Your task to perform on an android device: stop showing notifications on the lock screen Image 0: 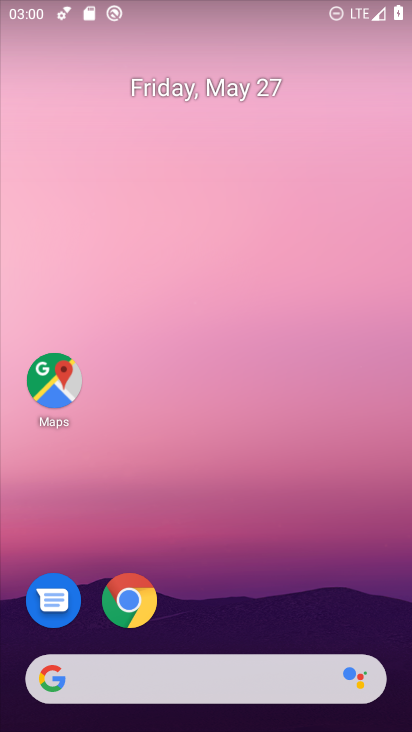
Step 0: drag from (198, 721) to (188, 104)
Your task to perform on an android device: stop showing notifications on the lock screen Image 1: 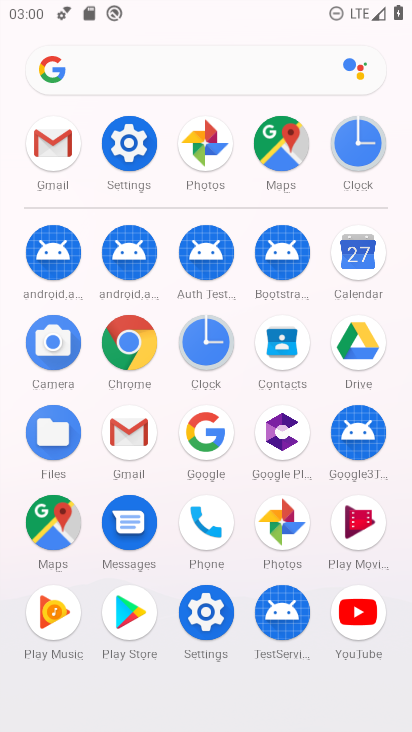
Step 1: click (120, 145)
Your task to perform on an android device: stop showing notifications on the lock screen Image 2: 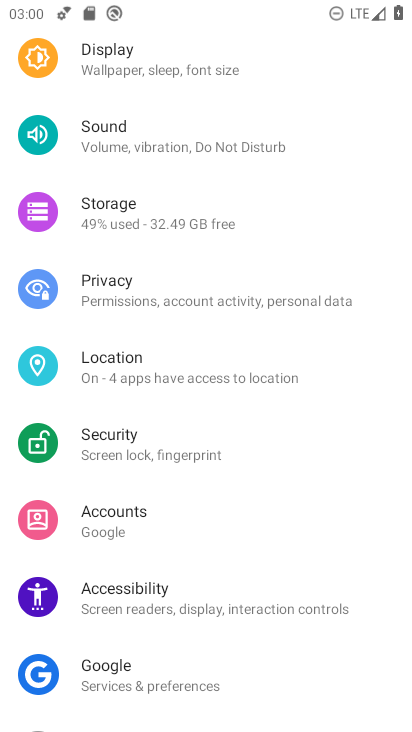
Step 2: drag from (245, 131) to (239, 542)
Your task to perform on an android device: stop showing notifications on the lock screen Image 3: 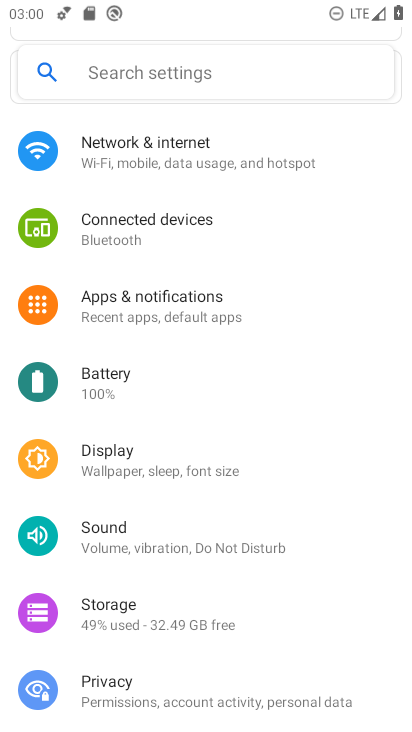
Step 3: click (164, 301)
Your task to perform on an android device: stop showing notifications on the lock screen Image 4: 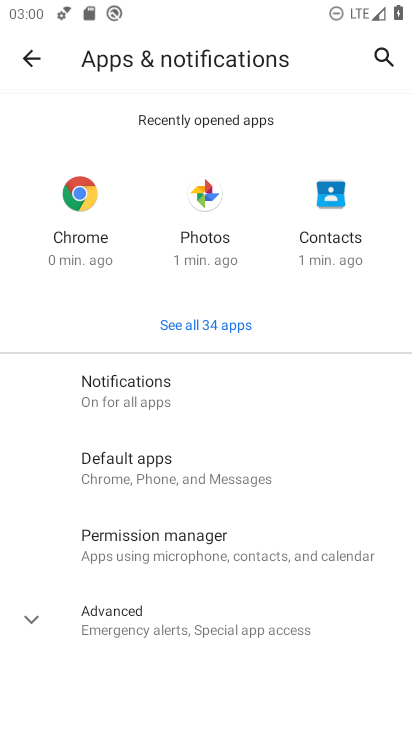
Step 4: click (122, 391)
Your task to perform on an android device: stop showing notifications on the lock screen Image 5: 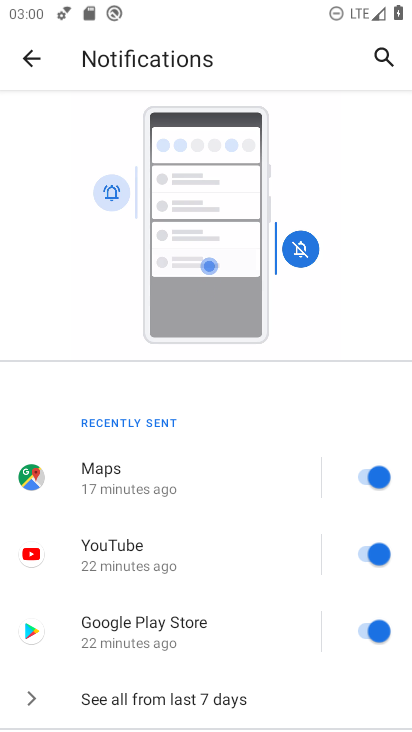
Step 5: drag from (196, 701) to (198, 375)
Your task to perform on an android device: stop showing notifications on the lock screen Image 6: 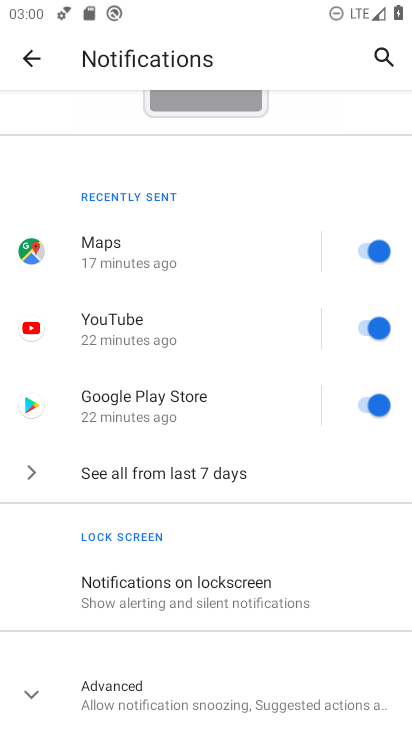
Step 6: drag from (212, 664) to (216, 454)
Your task to perform on an android device: stop showing notifications on the lock screen Image 7: 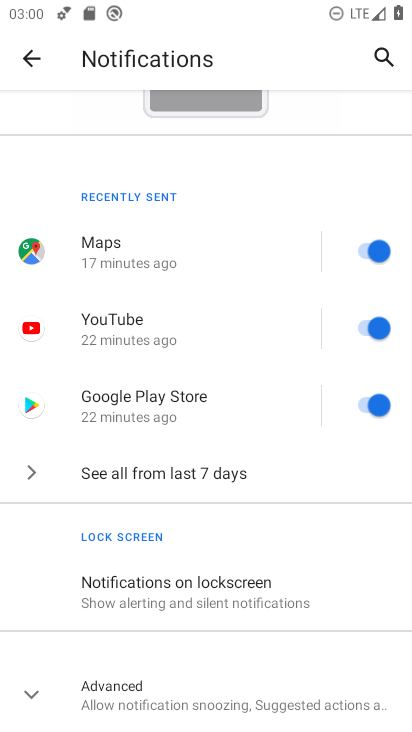
Step 7: click (175, 591)
Your task to perform on an android device: stop showing notifications on the lock screen Image 8: 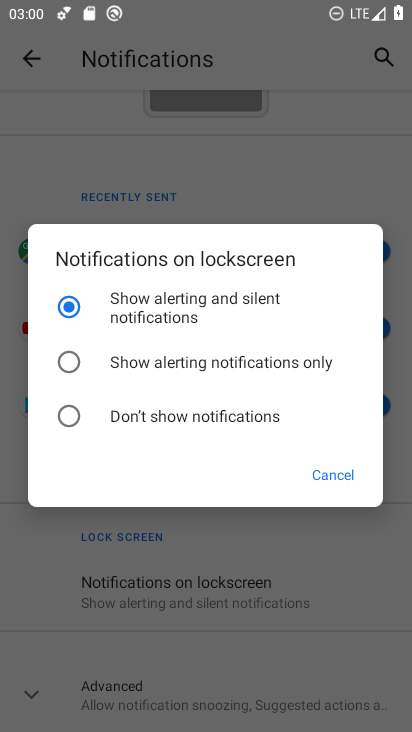
Step 8: click (61, 414)
Your task to perform on an android device: stop showing notifications on the lock screen Image 9: 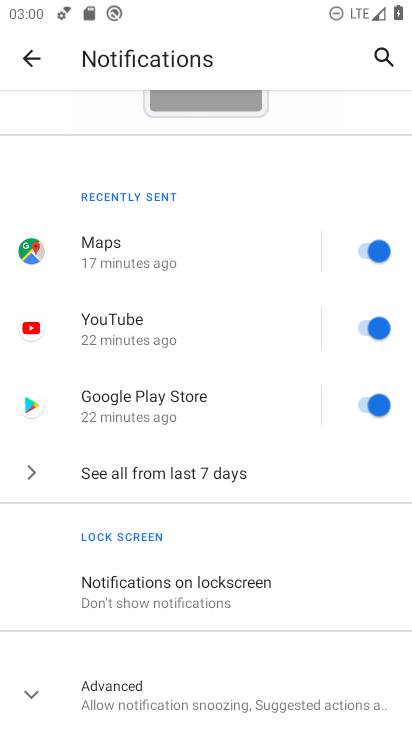
Step 9: task complete